Your task to perform on an android device: Open Google Chrome and click the shortcut for Amazon.com Image 0: 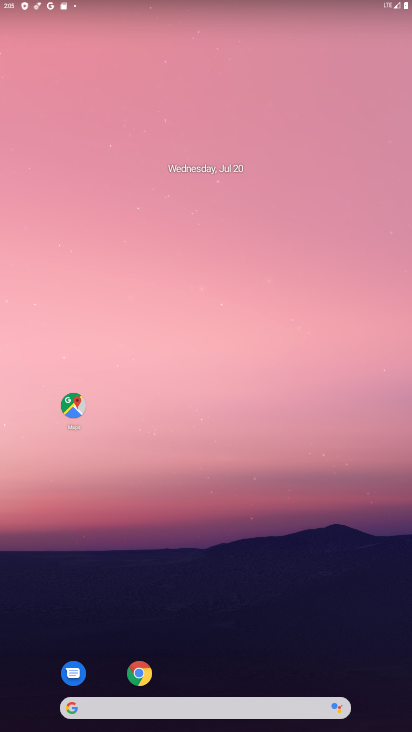
Step 0: drag from (220, 657) to (303, 58)
Your task to perform on an android device: Open Google Chrome and click the shortcut for Amazon.com Image 1: 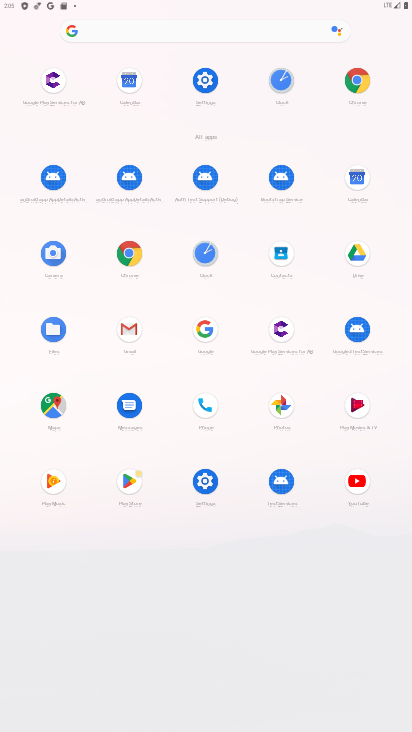
Step 1: click (126, 253)
Your task to perform on an android device: Open Google Chrome and click the shortcut for Amazon.com Image 2: 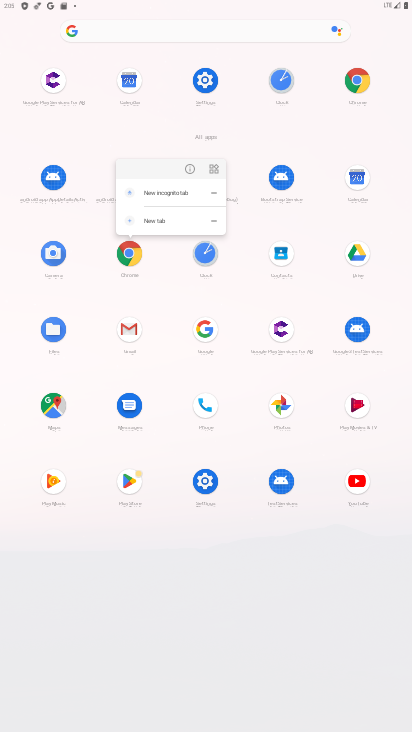
Step 2: click (189, 170)
Your task to perform on an android device: Open Google Chrome and click the shortcut for Amazon.com Image 3: 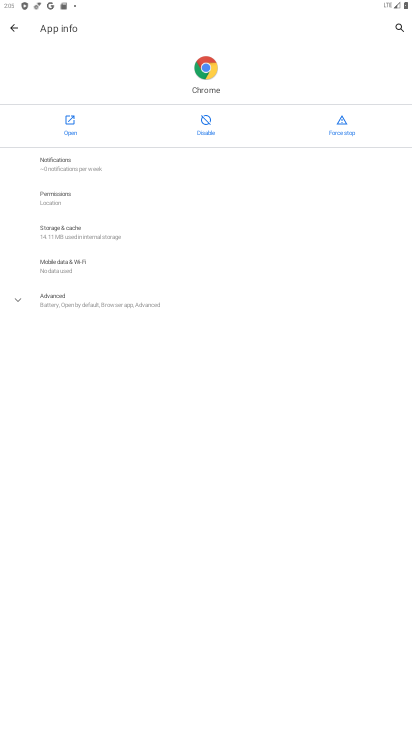
Step 3: click (60, 123)
Your task to perform on an android device: Open Google Chrome and click the shortcut for Amazon.com Image 4: 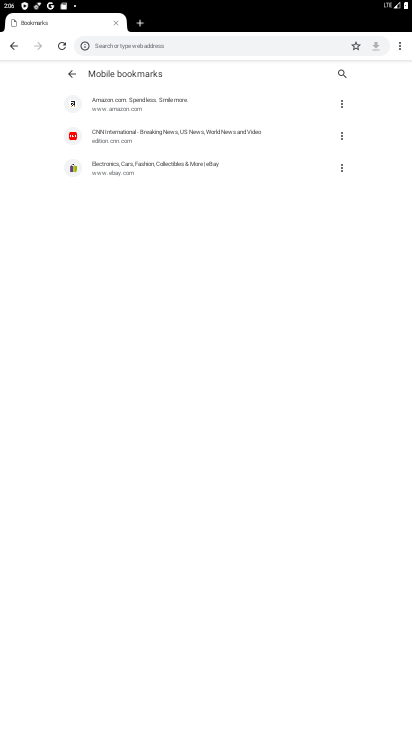
Step 4: click (146, 26)
Your task to perform on an android device: Open Google Chrome and click the shortcut for Amazon.com Image 5: 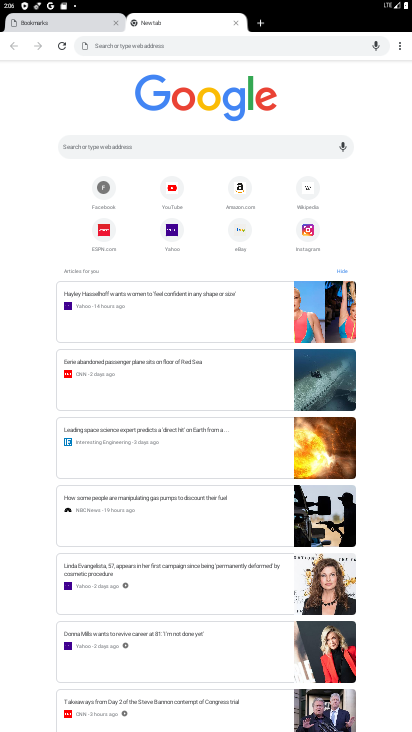
Step 5: click (233, 183)
Your task to perform on an android device: Open Google Chrome and click the shortcut for Amazon.com Image 6: 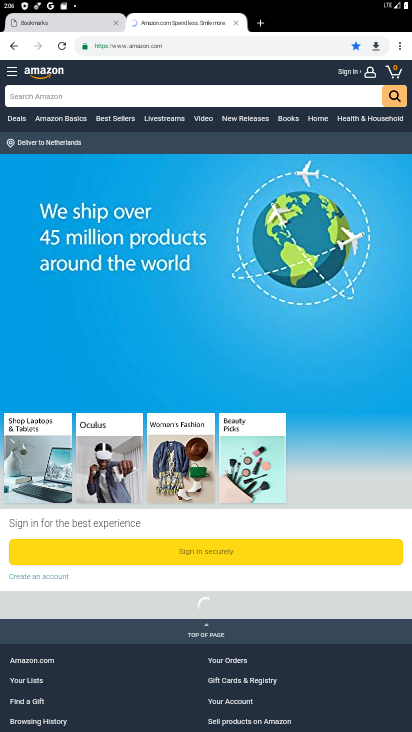
Step 6: task complete